Your task to perform on an android device: Go to sound settings Image 0: 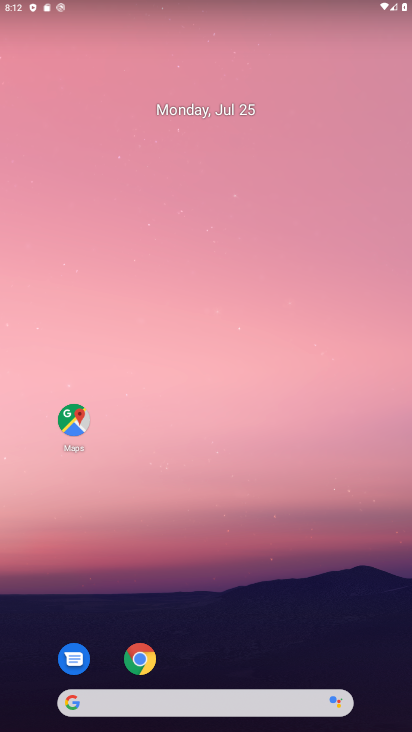
Step 0: drag from (213, 653) to (243, 153)
Your task to perform on an android device: Go to sound settings Image 1: 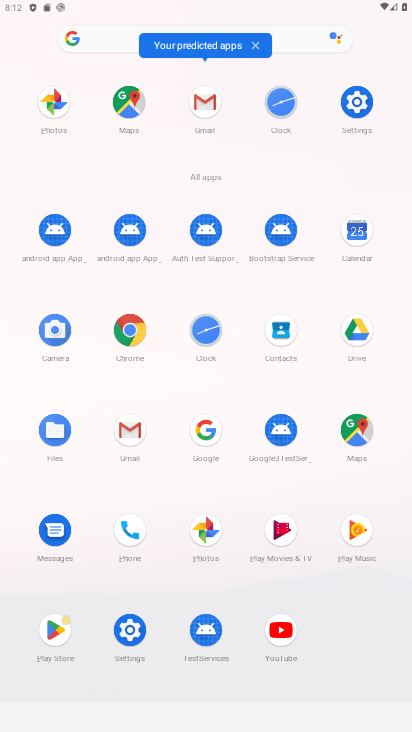
Step 1: click (363, 111)
Your task to perform on an android device: Go to sound settings Image 2: 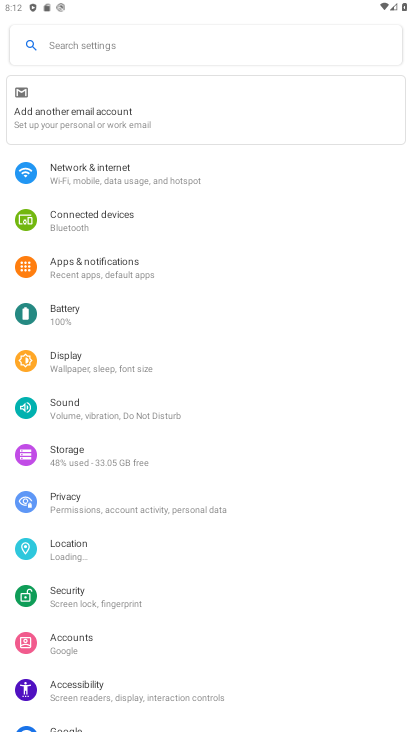
Step 2: click (136, 408)
Your task to perform on an android device: Go to sound settings Image 3: 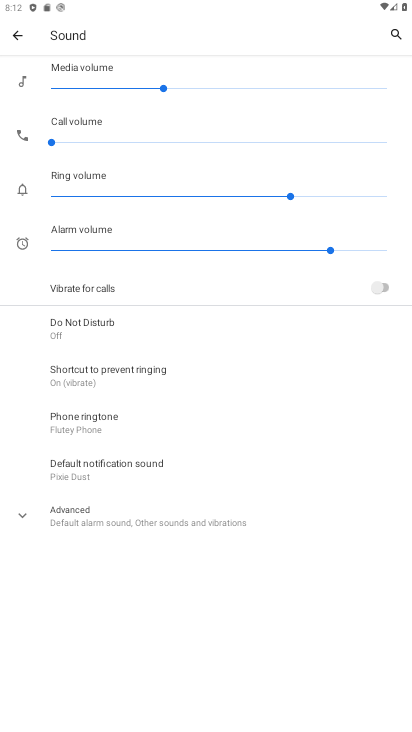
Step 3: task complete